Your task to perform on an android device: Play the last video I watched on Youtube Image 0: 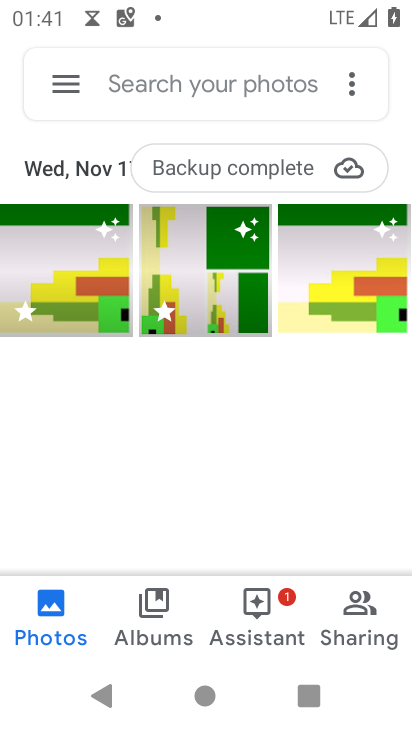
Step 0: press home button
Your task to perform on an android device: Play the last video I watched on Youtube Image 1: 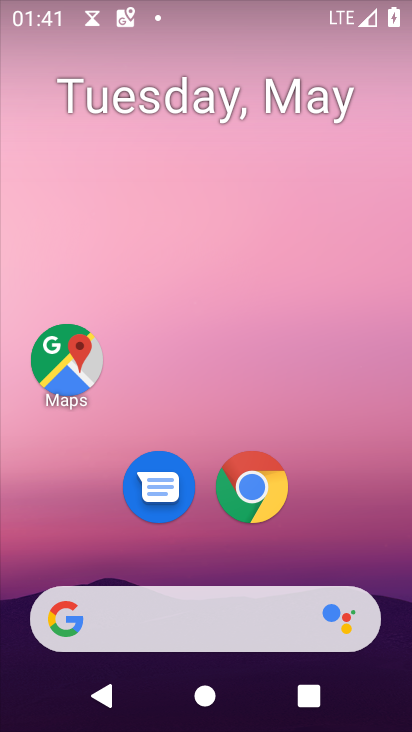
Step 1: drag from (198, 496) to (280, 35)
Your task to perform on an android device: Play the last video I watched on Youtube Image 2: 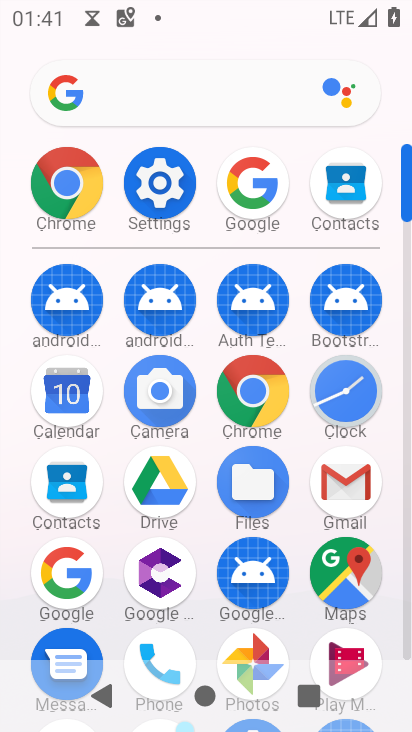
Step 2: drag from (257, 544) to (278, 159)
Your task to perform on an android device: Play the last video I watched on Youtube Image 3: 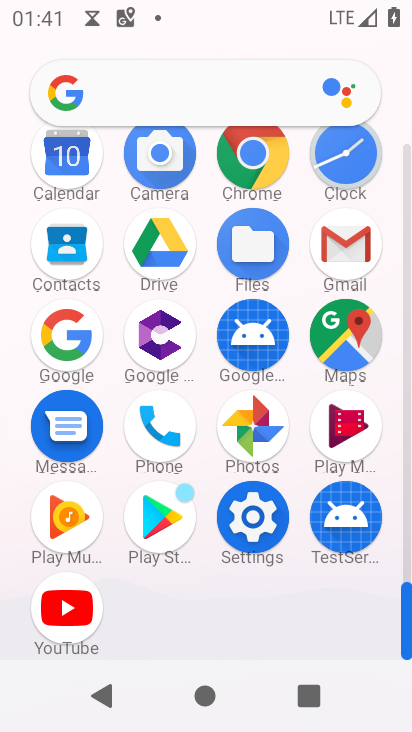
Step 3: click (71, 604)
Your task to perform on an android device: Play the last video I watched on Youtube Image 4: 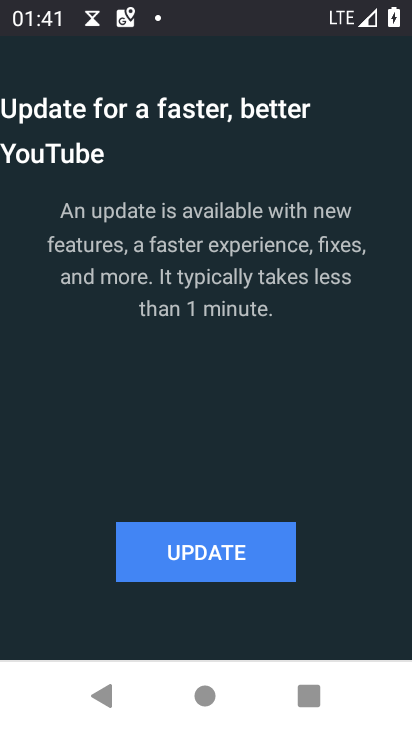
Step 4: click (223, 549)
Your task to perform on an android device: Play the last video I watched on Youtube Image 5: 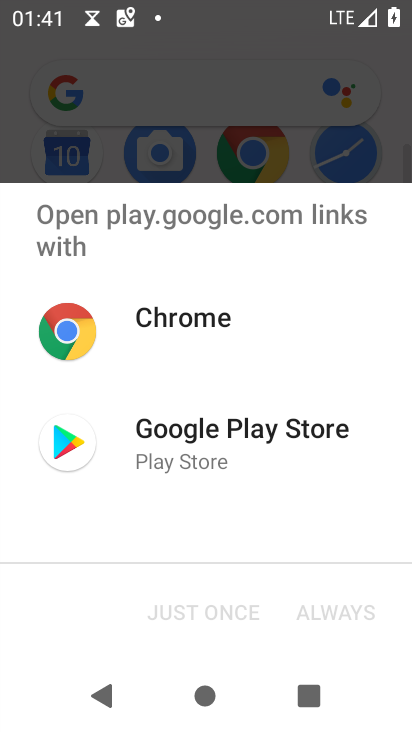
Step 5: click (203, 418)
Your task to perform on an android device: Play the last video I watched on Youtube Image 6: 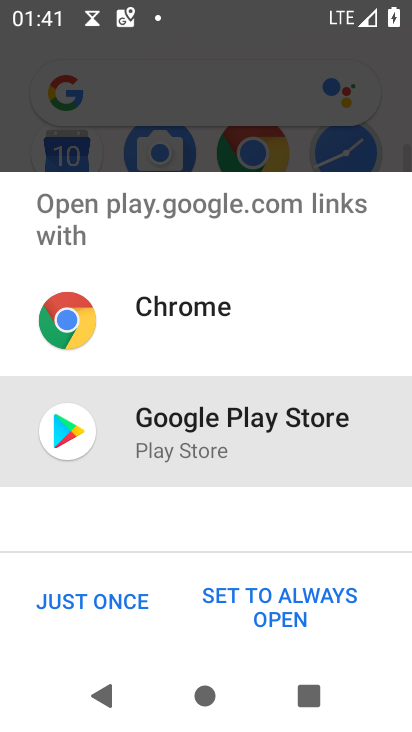
Step 6: click (287, 589)
Your task to perform on an android device: Play the last video I watched on Youtube Image 7: 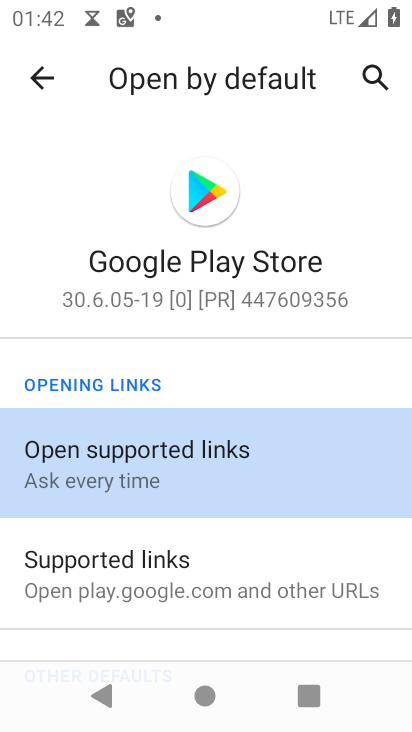
Step 7: click (242, 482)
Your task to perform on an android device: Play the last video I watched on Youtube Image 8: 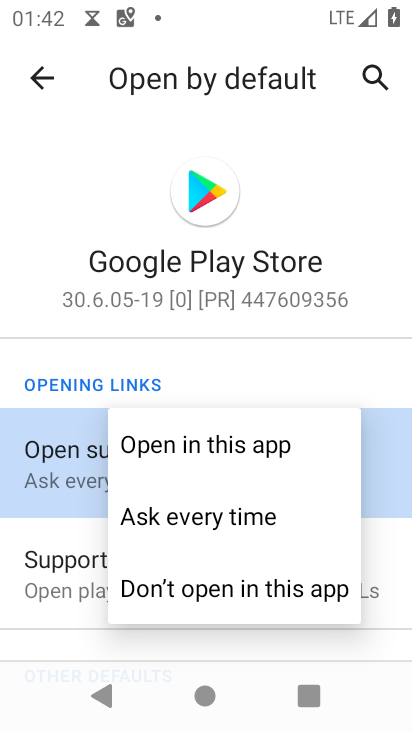
Step 8: click (197, 444)
Your task to perform on an android device: Play the last video I watched on Youtube Image 9: 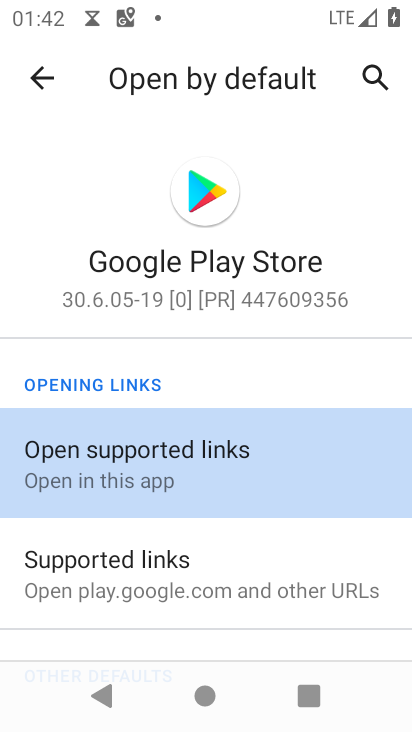
Step 9: click (183, 585)
Your task to perform on an android device: Play the last video I watched on Youtube Image 10: 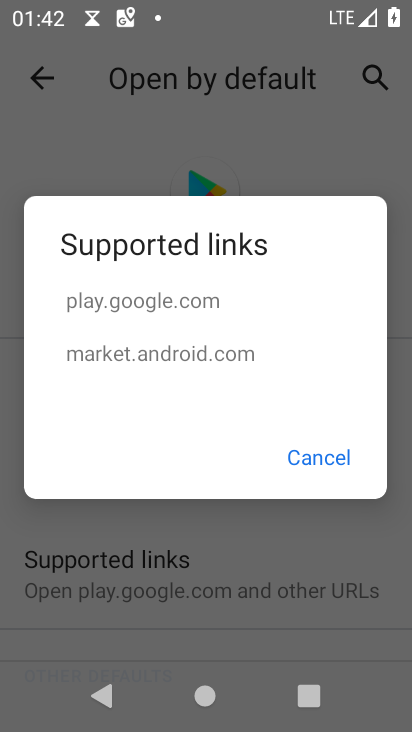
Step 10: click (270, 295)
Your task to perform on an android device: Play the last video I watched on Youtube Image 11: 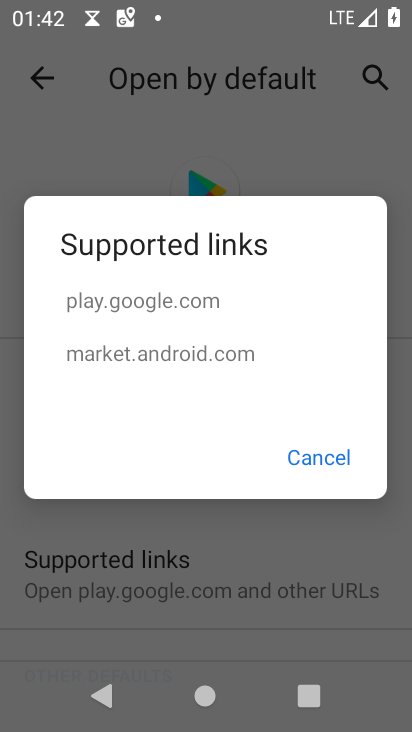
Step 11: click (198, 303)
Your task to perform on an android device: Play the last video I watched on Youtube Image 12: 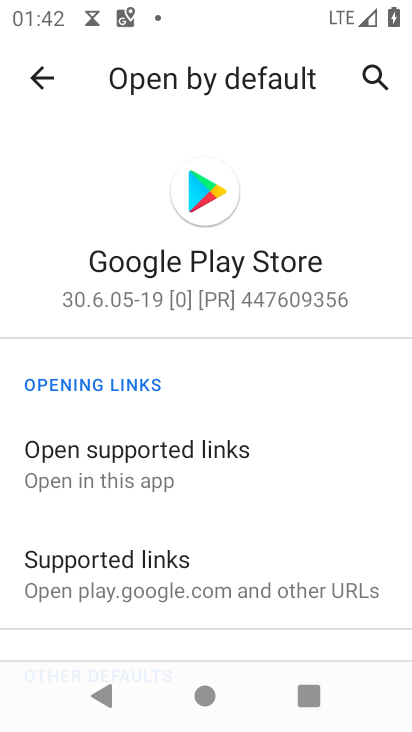
Step 12: drag from (256, 561) to (250, 382)
Your task to perform on an android device: Play the last video I watched on Youtube Image 13: 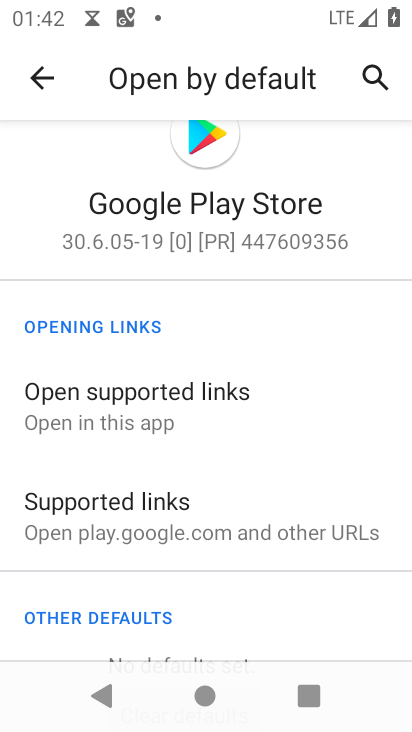
Step 13: drag from (141, 586) to (172, 287)
Your task to perform on an android device: Play the last video I watched on Youtube Image 14: 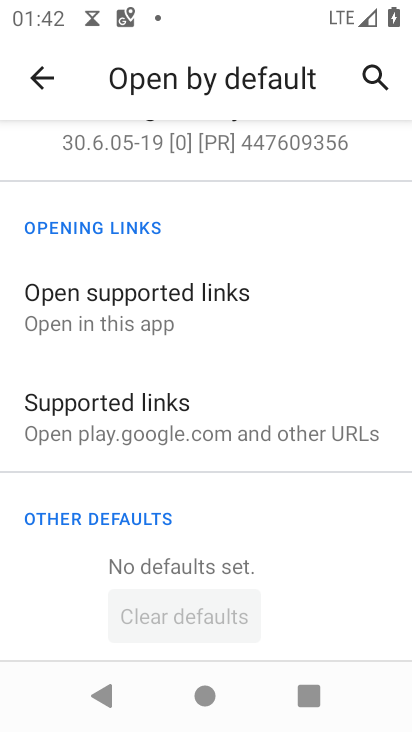
Step 14: click (143, 612)
Your task to perform on an android device: Play the last video I watched on Youtube Image 15: 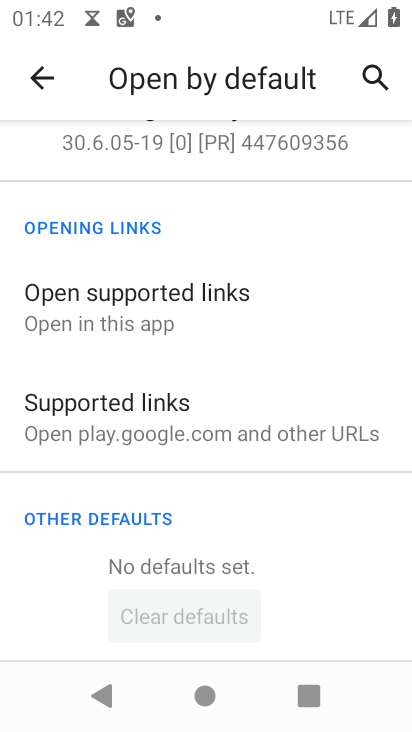
Step 15: click (59, 56)
Your task to perform on an android device: Play the last video I watched on Youtube Image 16: 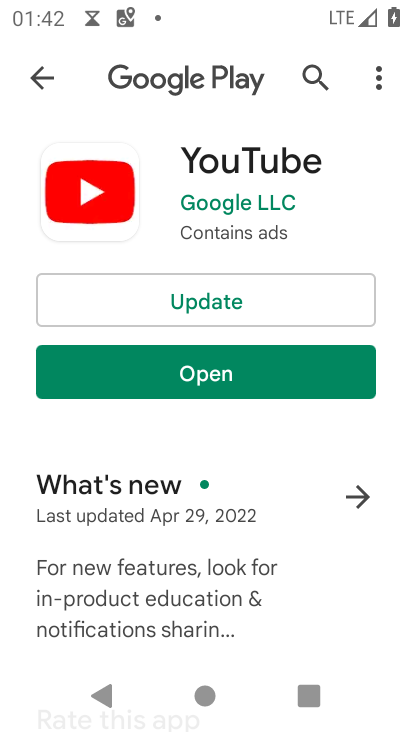
Step 16: click (185, 300)
Your task to perform on an android device: Play the last video I watched on Youtube Image 17: 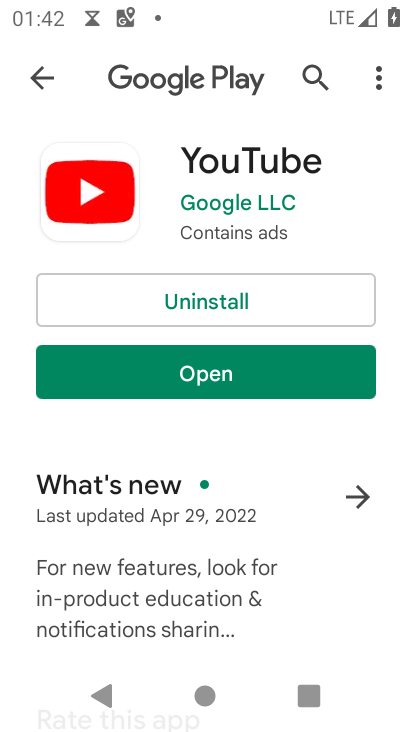
Step 17: click (146, 364)
Your task to perform on an android device: Play the last video I watched on Youtube Image 18: 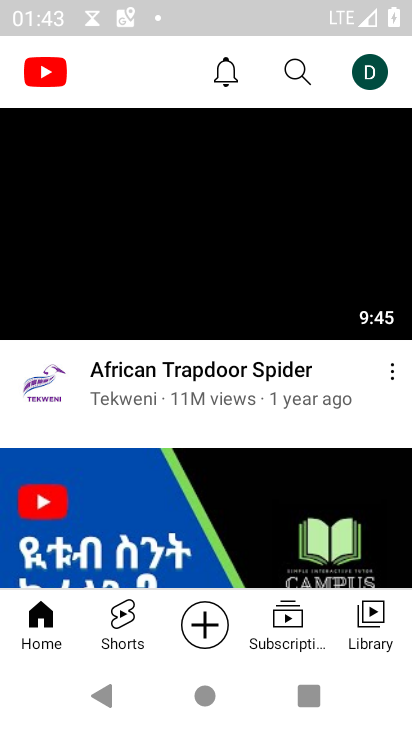
Step 18: click (383, 637)
Your task to perform on an android device: Play the last video I watched on Youtube Image 19: 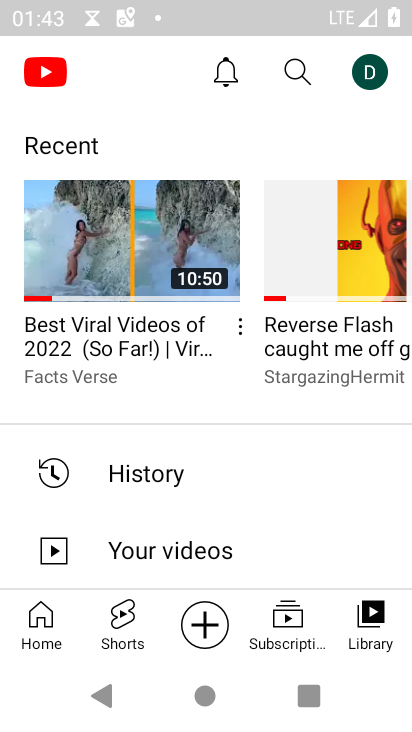
Step 19: click (178, 266)
Your task to perform on an android device: Play the last video I watched on Youtube Image 20: 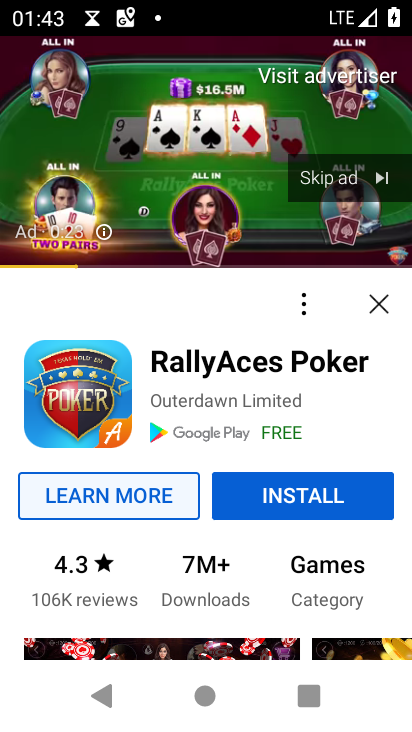
Step 20: click (353, 164)
Your task to perform on an android device: Play the last video I watched on Youtube Image 21: 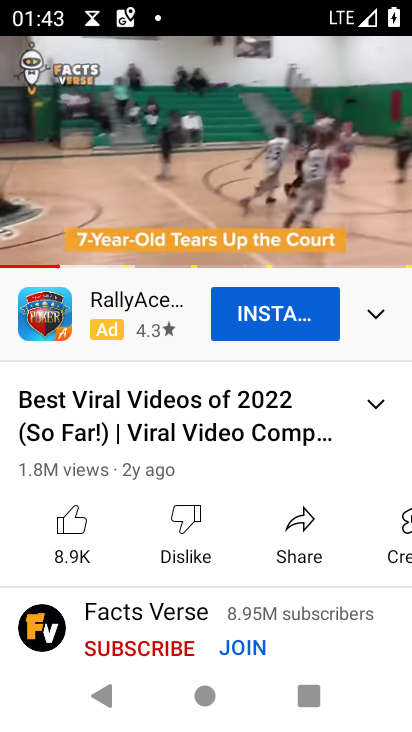
Step 21: task complete